Your task to perform on an android device: Open Android settings Image 0: 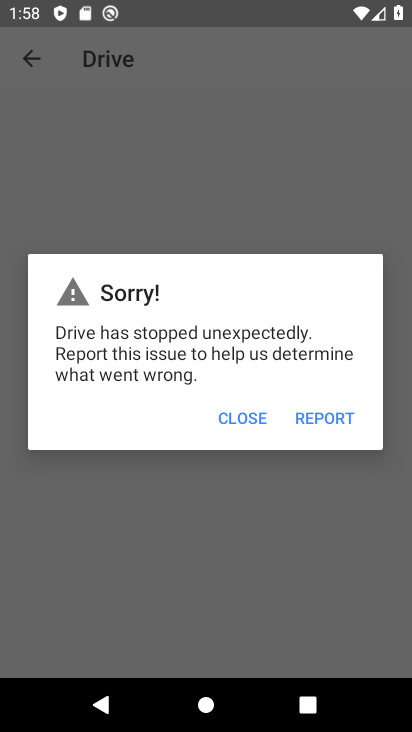
Step 0: press back button
Your task to perform on an android device: Open Android settings Image 1: 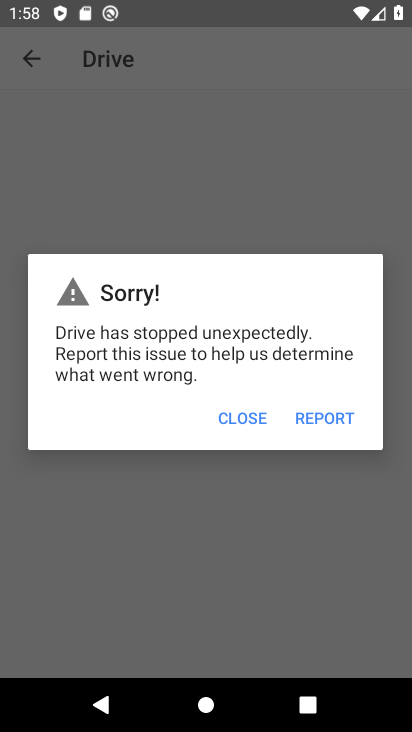
Step 1: press back button
Your task to perform on an android device: Open Android settings Image 2: 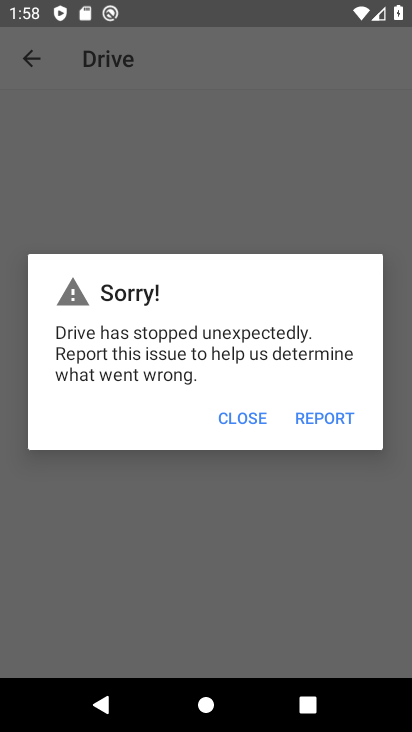
Step 2: press home button
Your task to perform on an android device: Open Android settings Image 3: 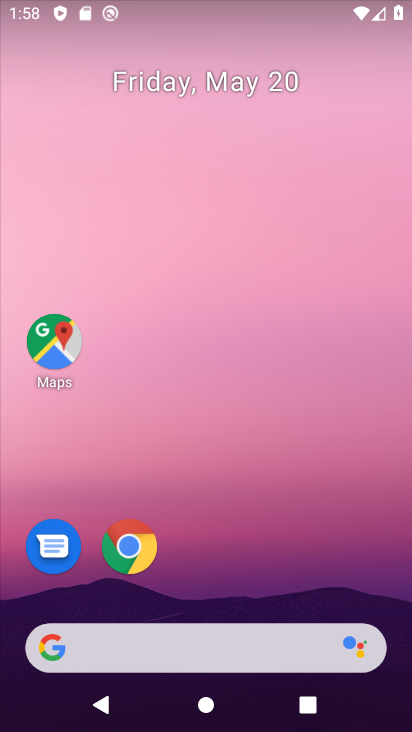
Step 3: drag from (322, 571) to (247, 95)
Your task to perform on an android device: Open Android settings Image 4: 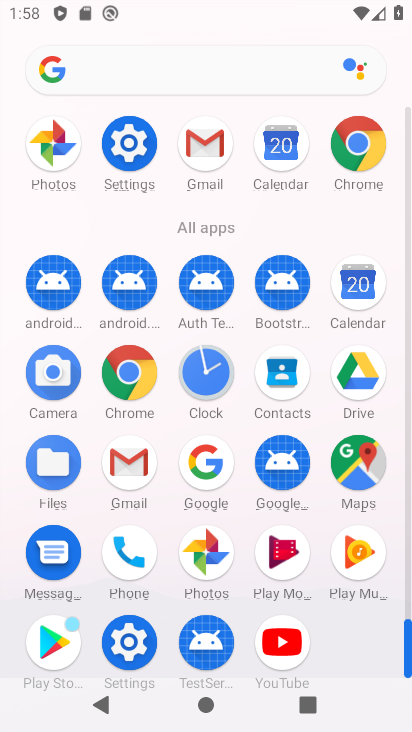
Step 4: drag from (7, 550) to (6, 225)
Your task to perform on an android device: Open Android settings Image 5: 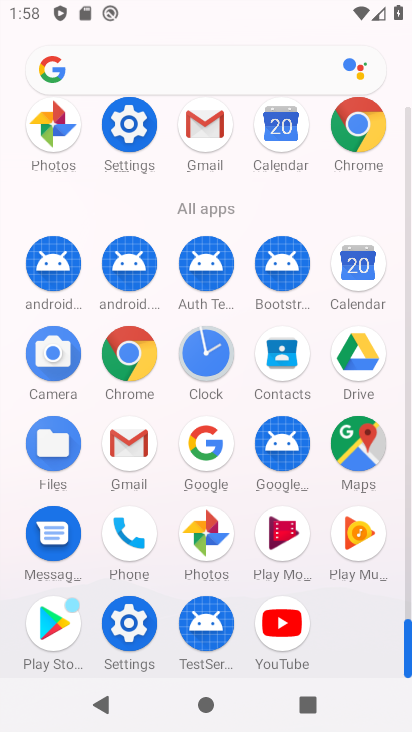
Step 5: click (130, 622)
Your task to perform on an android device: Open Android settings Image 6: 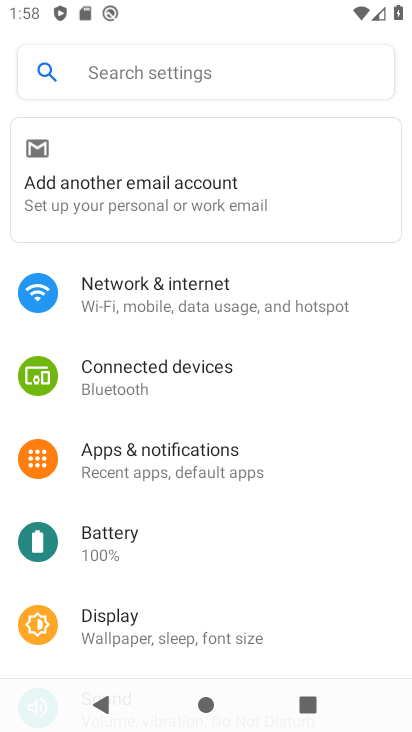
Step 6: task complete